Your task to perform on an android device: delete location history Image 0: 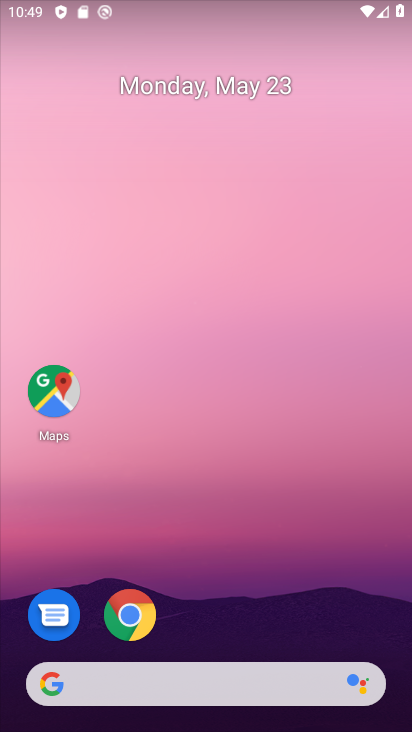
Step 0: click (40, 403)
Your task to perform on an android device: delete location history Image 1: 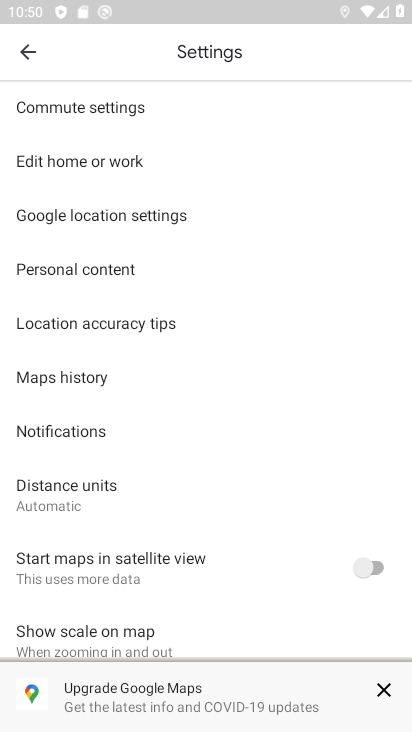
Step 1: click (42, 58)
Your task to perform on an android device: delete location history Image 2: 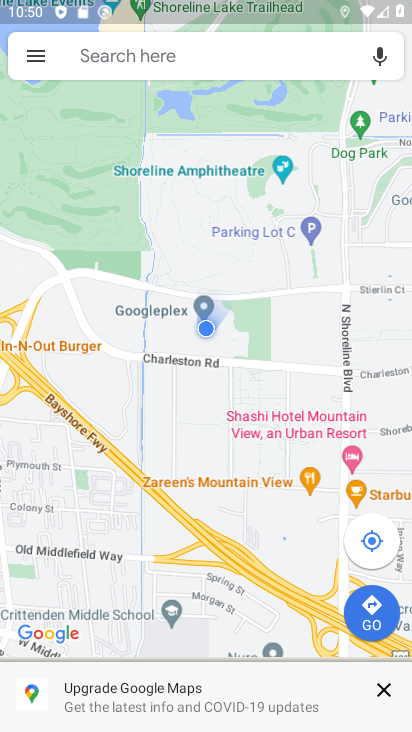
Step 2: click (42, 58)
Your task to perform on an android device: delete location history Image 3: 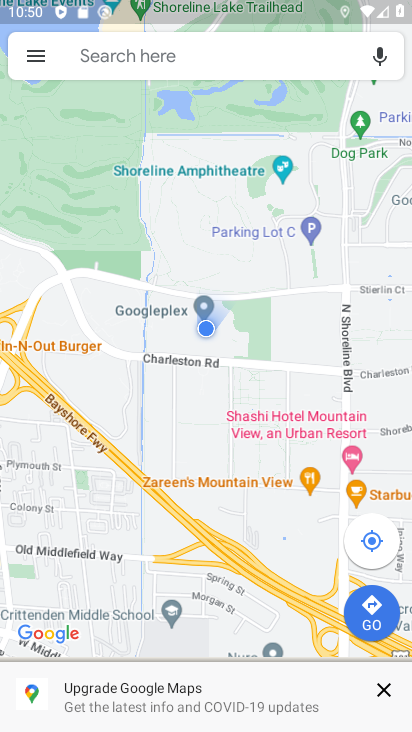
Step 3: click (42, 58)
Your task to perform on an android device: delete location history Image 4: 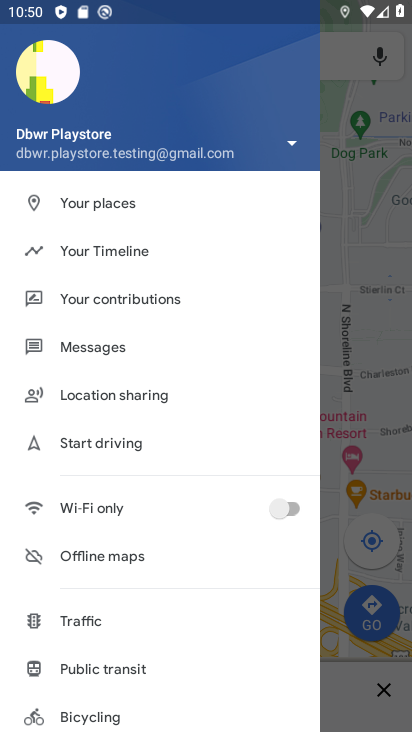
Step 4: click (98, 251)
Your task to perform on an android device: delete location history Image 5: 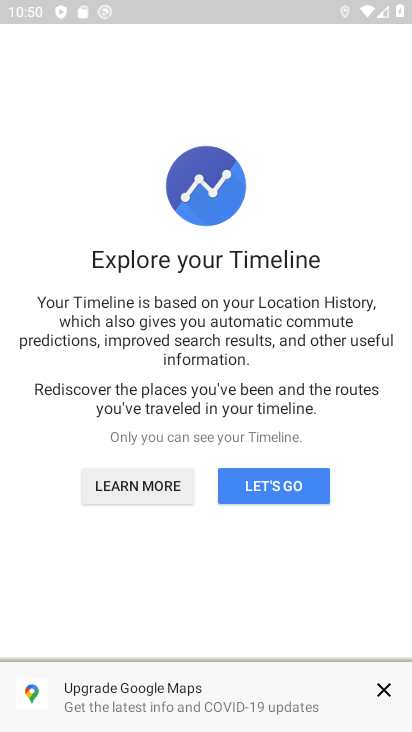
Step 5: click (274, 500)
Your task to perform on an android device: delete location history Image 6: 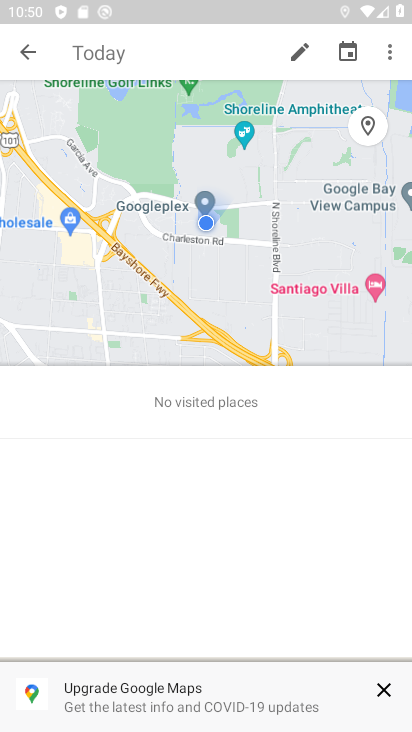
Step 6: click (395, 54)
Your task to perform on an android device: delete location history Image 7: 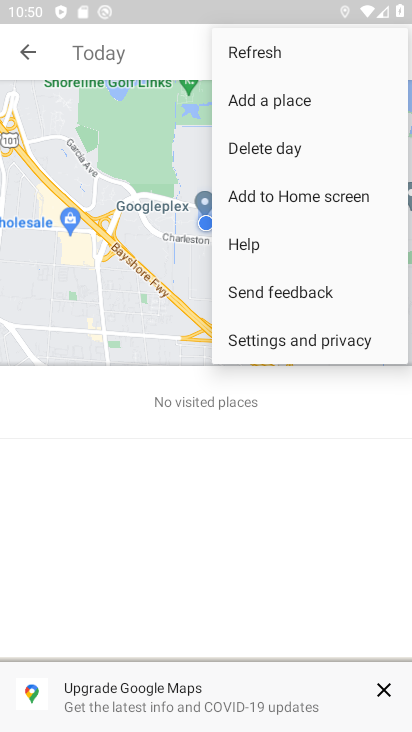
Step 7: click (273, 333)
Your task to perform on an android device: delete location history Image 8: 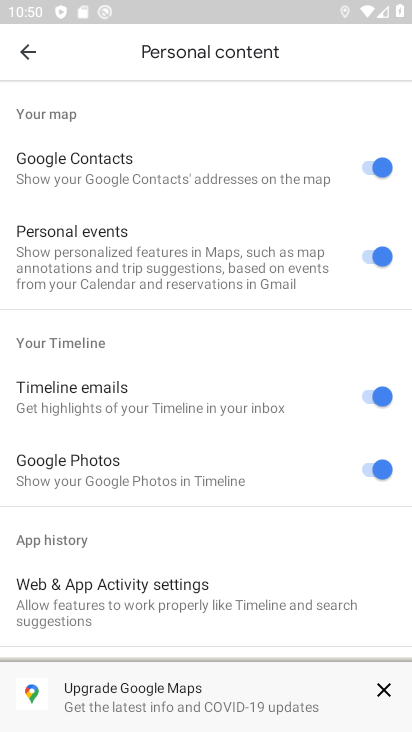
Step 8: drag from (131, 624) to (190, 138)
Your task to perform on an android device: delete location history Image 9: 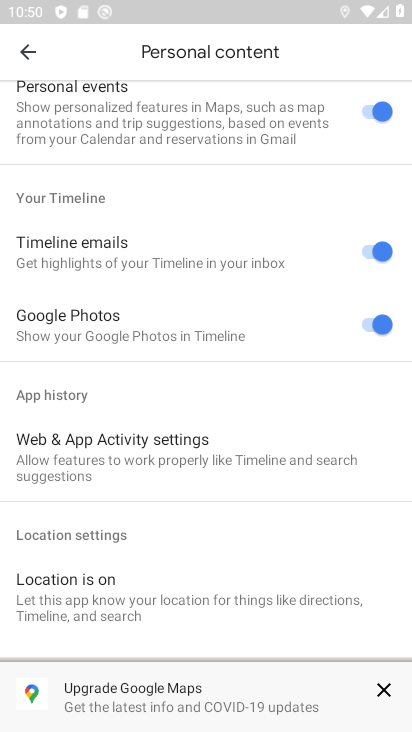
Step 9: drag from (112, 578) to (148, 295)
Your task to perform on an android device: delete location history Image 10: 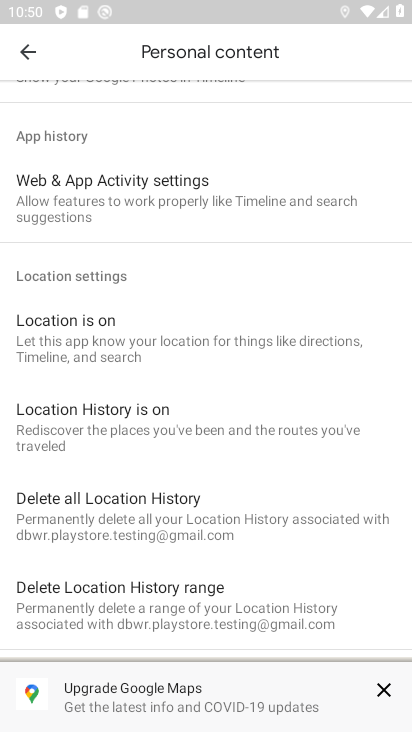
Step 10: click (65, 521)
Your task to perform on an android device: delete location history Image 11: 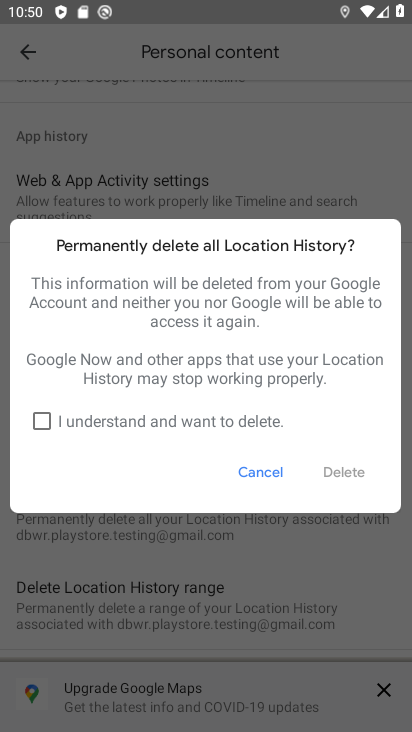
Step 11: click (42, 425)
Your task to perform on an android device: delete location history Image 12: 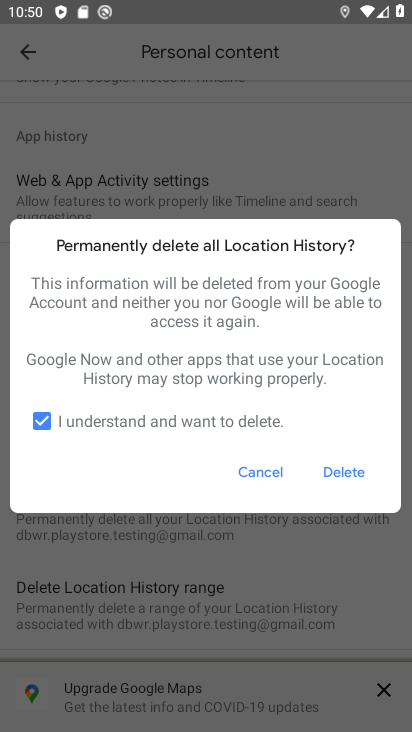
Step 12: click (358, 473)
Your task to perform on an android device: delete location history Image 13: 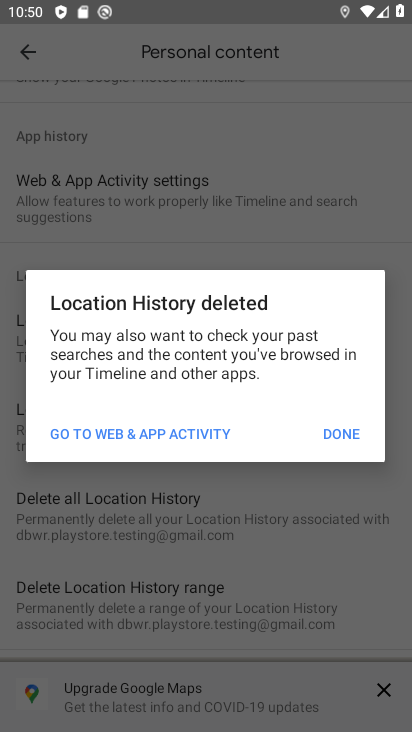
Step 13: click (347, 433)
Your task to perform on an android device: delete location history Image 14: 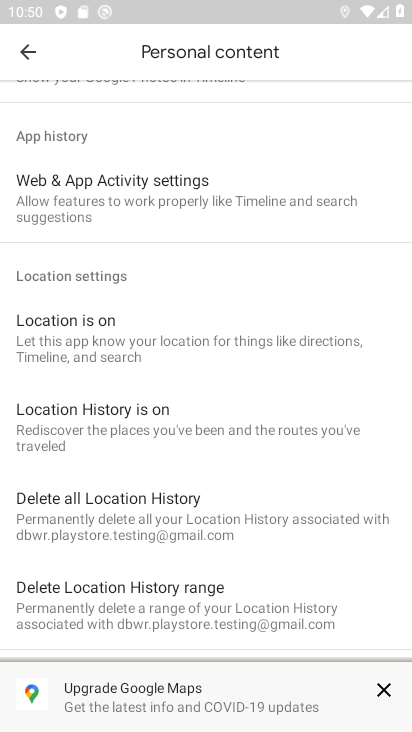
Step 14: task complete